Your task to perform on an android device: set the stopwatch Image 0: 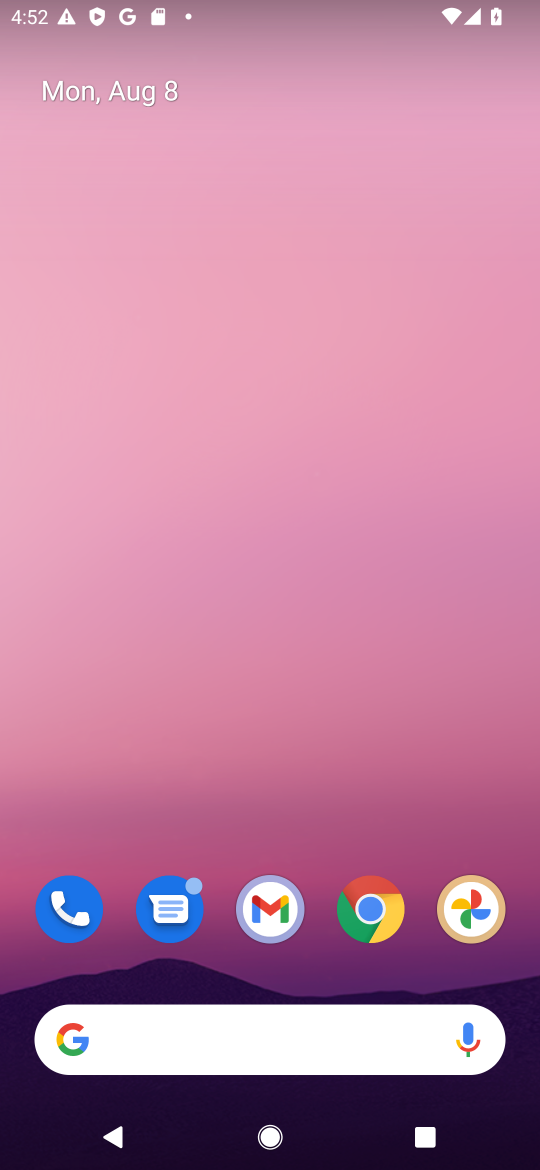
Step 0: drag from (243, 1041) to (502, 435)
Your task to perform on an android device: set the stopwatch Image 1: 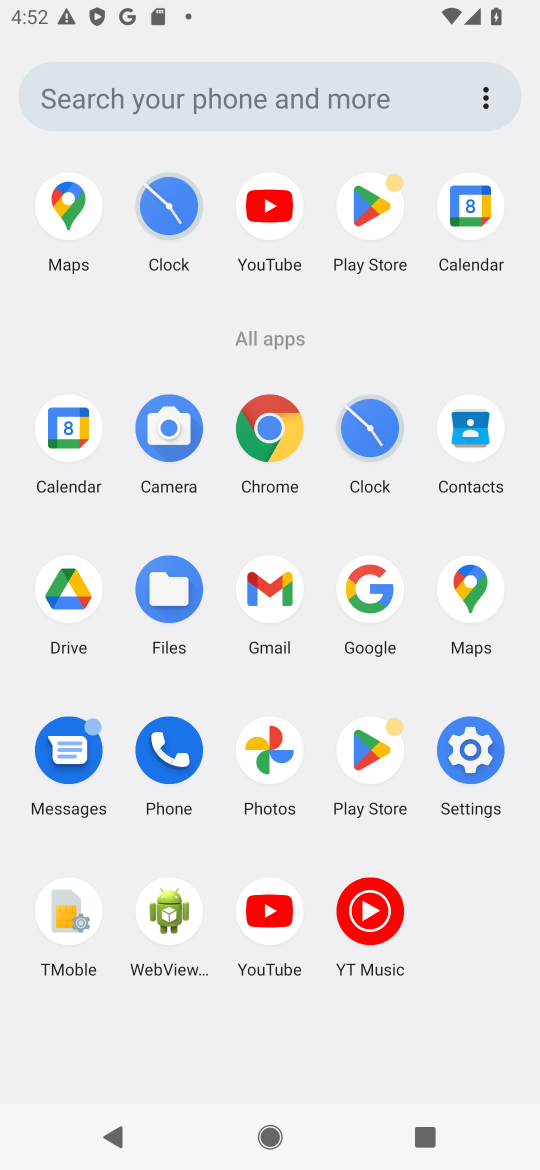
Step 1: click (380, 423)
Your task to perform on an android device: set the stopwatch Image 2: 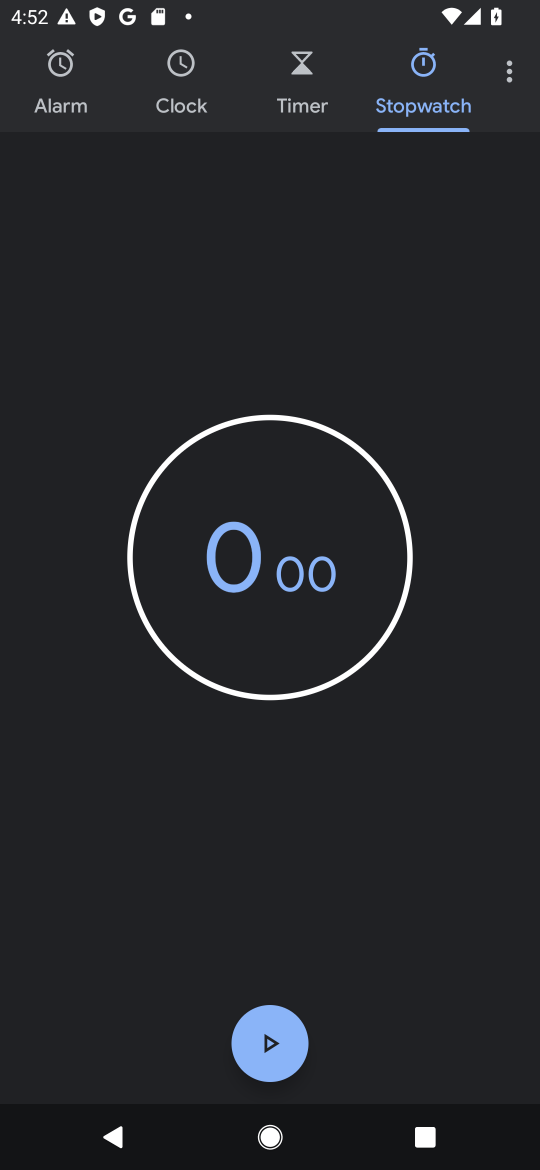
Step 2: click (271, 534)
Your task to perform on an android device: set the stopwatch Image 3: 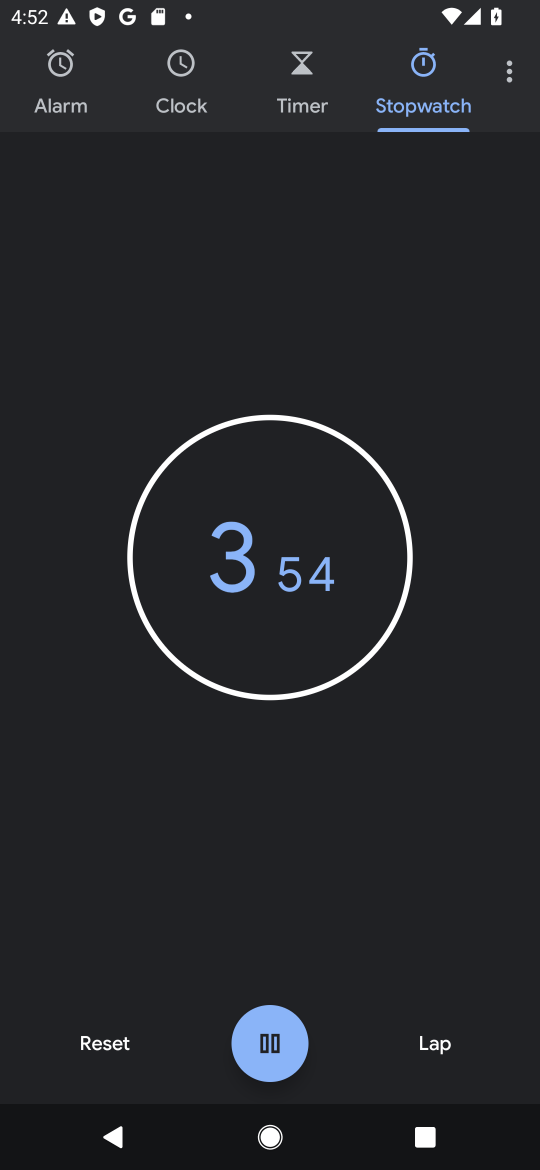
Step 3: click (271, 534)
Your task to perform on an android device: set the stopwatch Image 4: 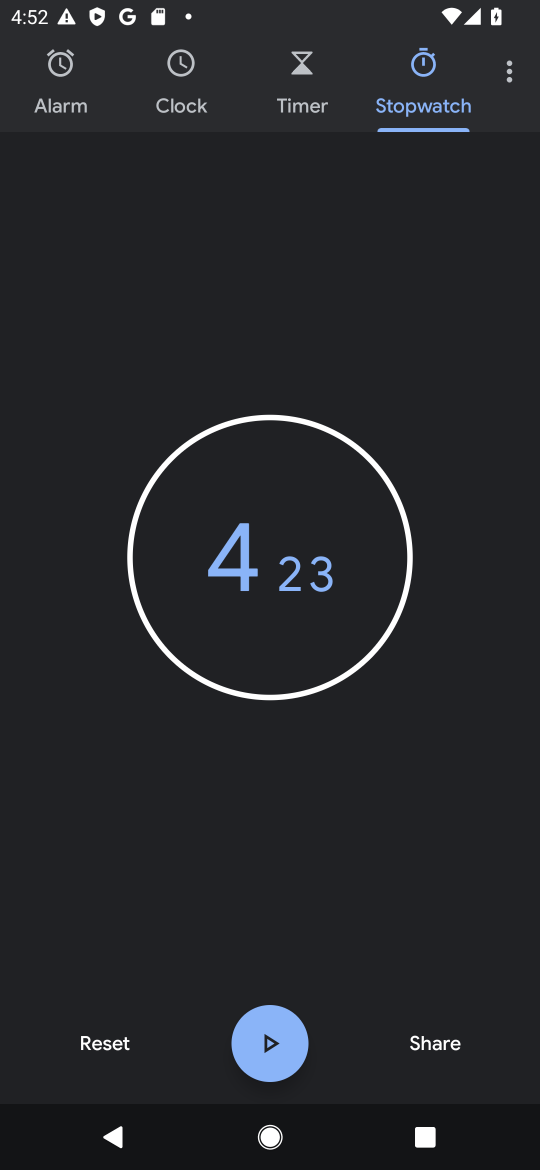
Step 4: task complete